Your task to perform on an android device: Check my gmail Image 0: 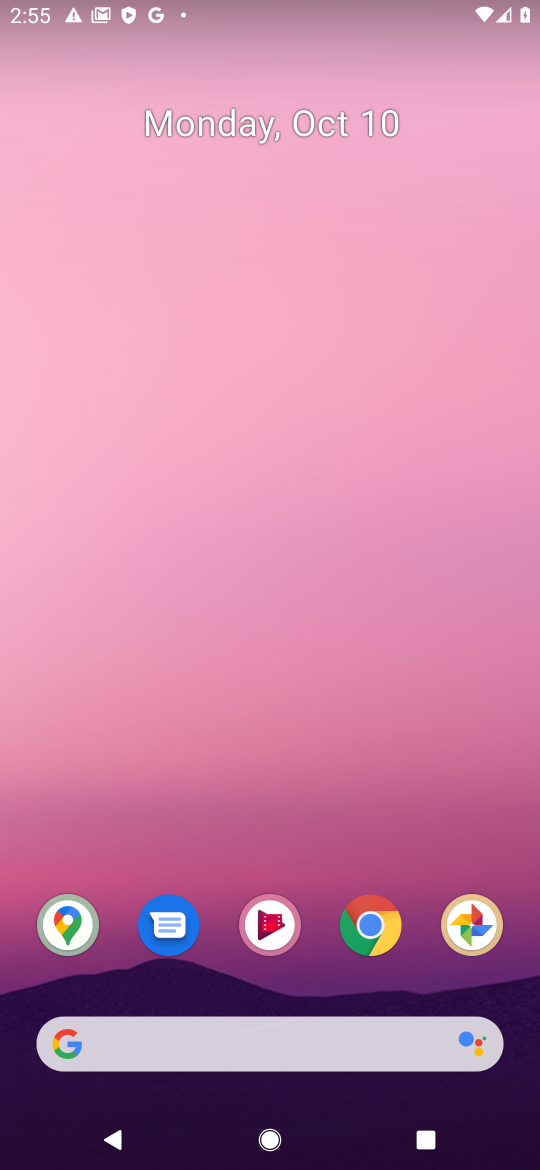
Step 0: drag from (271, 1050) to (123, 422)
Your task to perform on an android device: Check my gmail Image 1: 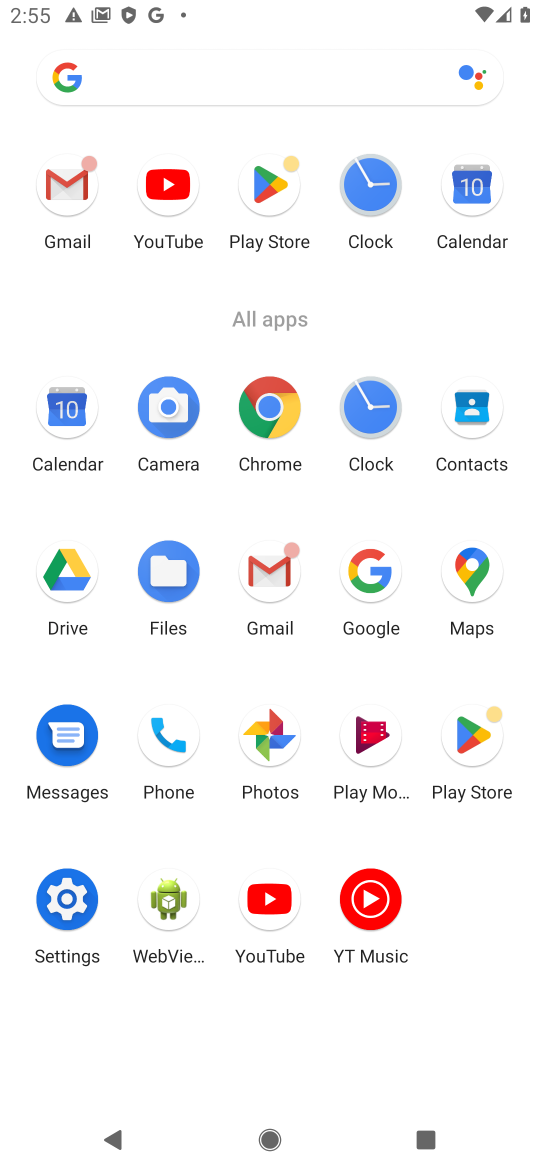
Step 1: click (272, 595)
Your task to perform on an android device: Check my gmail Image 2: 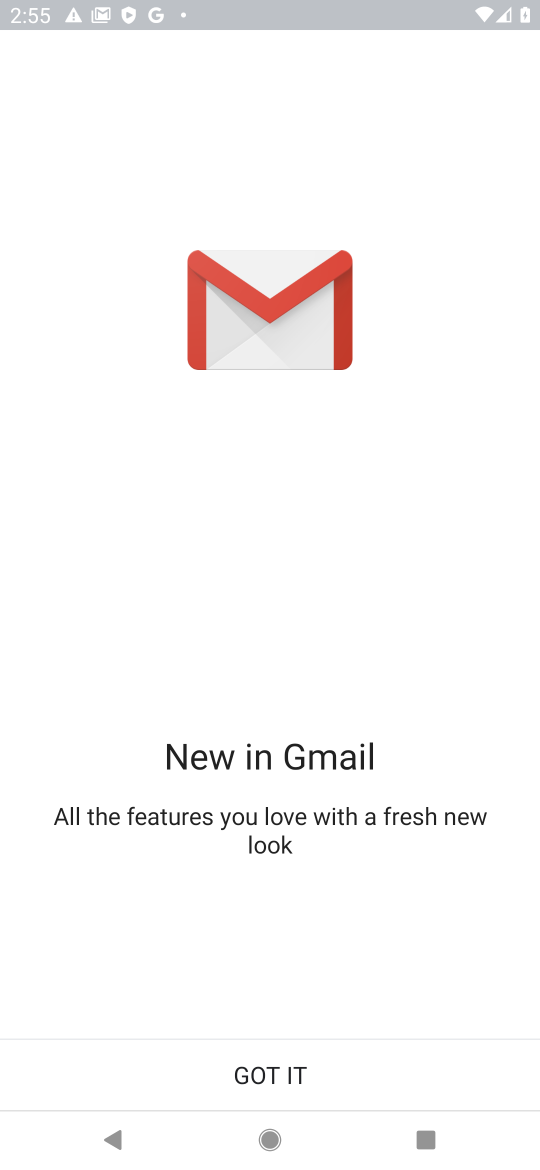
Step 2: click (225, 1087)
Your task to perform on an android device: Check my gmail Image 3: 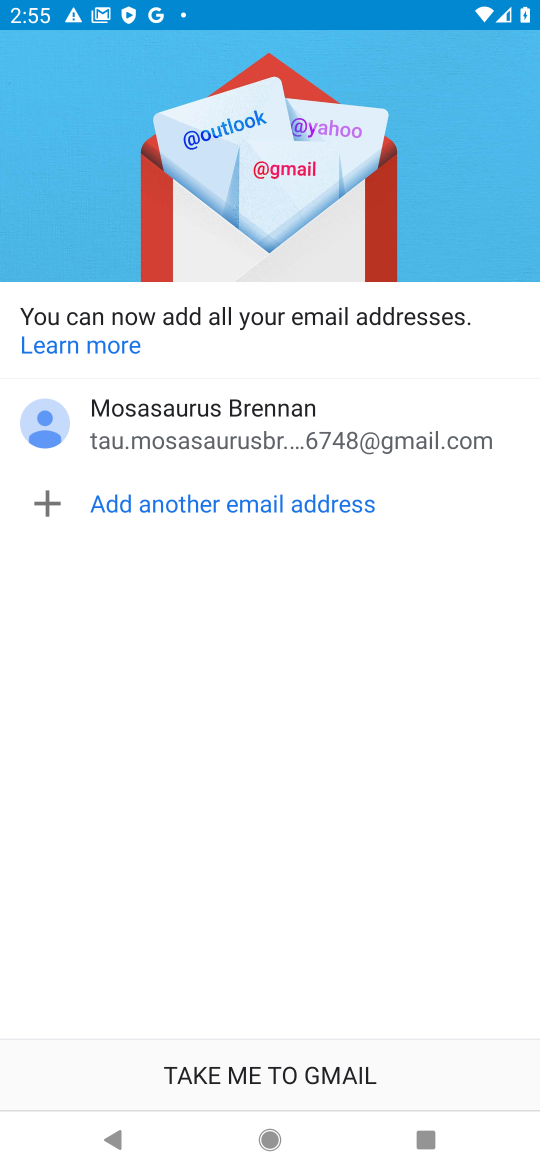
Step 3: click (224, 1085)
Your task to perform on an android device: Check my gmail Image 4: 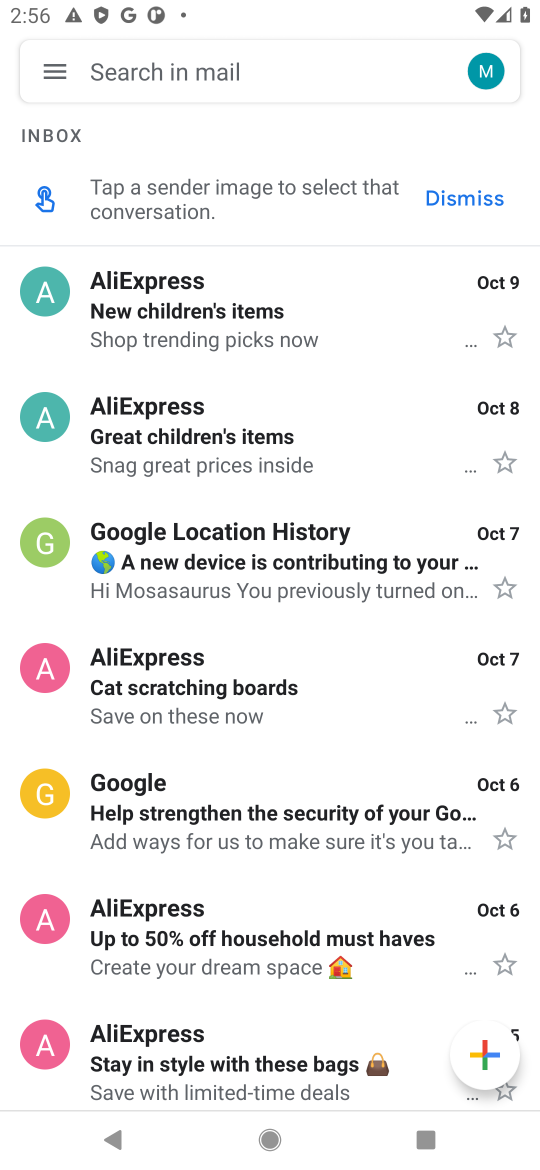
Step 4: task complete